Your task to perform on an android device: Go to Yahoo.com Image 0: 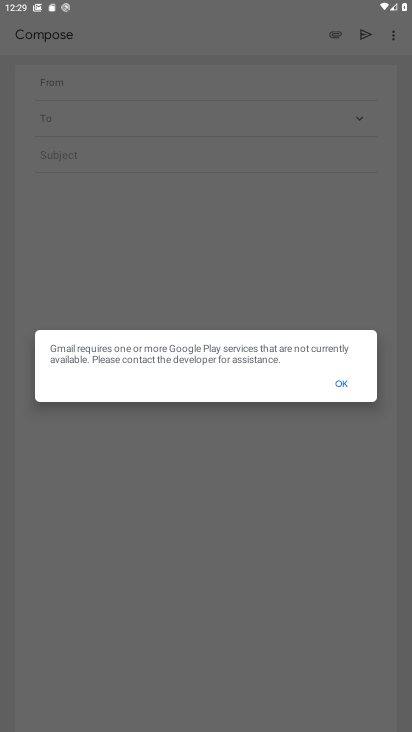
Step 0: press home button
Your task to perform on an android device: Go to Yahoo.com Image 1: 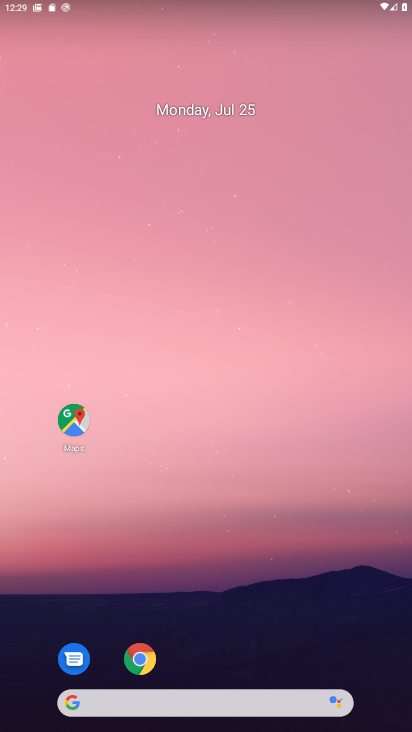
Step 1: click (144, 658)
Your task to perform on an android device: Go to Yahoo.com Image 2: 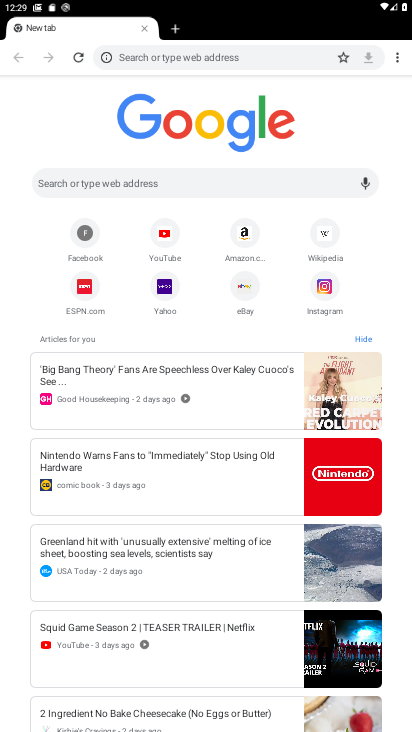
Step 2: click (159, 296)
Your task to perform on an android device: Go to Yahoo.com Image 3: 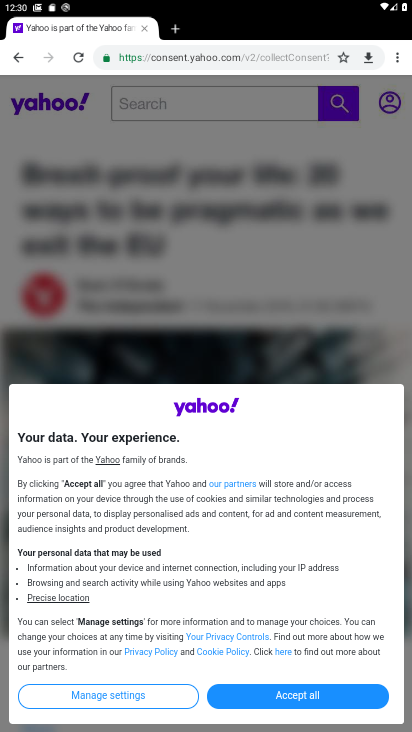
Step 3: task complete